Your task to perform on an android device: Show me productivity apps on the Play Store Image 0: 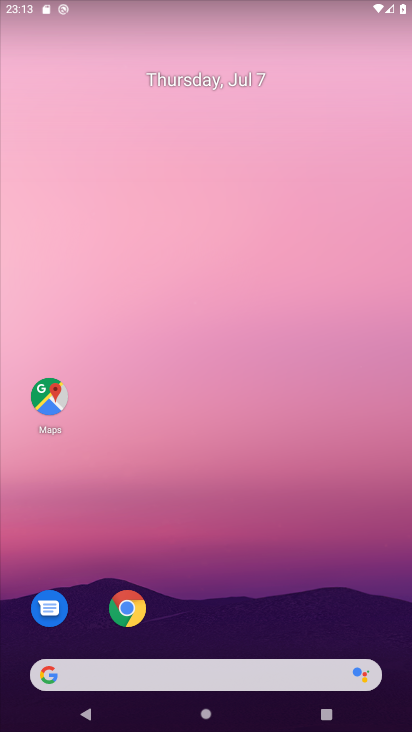
Step 0: drag from (262, 612) to (289, 86)
Your task to perform on an android device: Show me productivity apps on the Play Store Image 1: 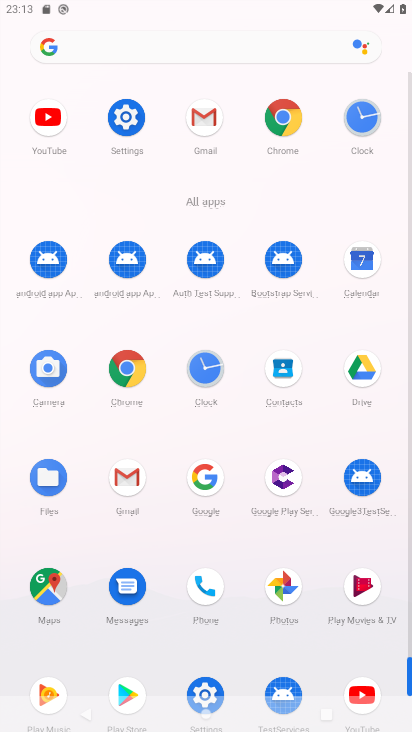
Step 1: click (124, 683)
Your task to perform on an android device: Show me productivity apps on the Play Store Image 2: 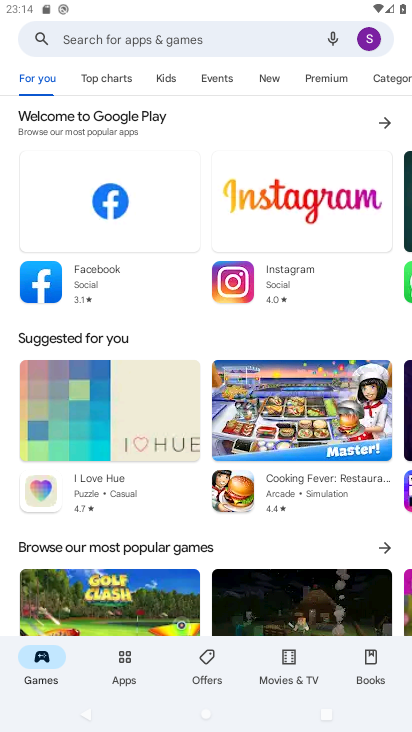
Step 2: click (124, 668)
Your task to perform on an android device: Show me productivity apps on the Play Store Image 3: 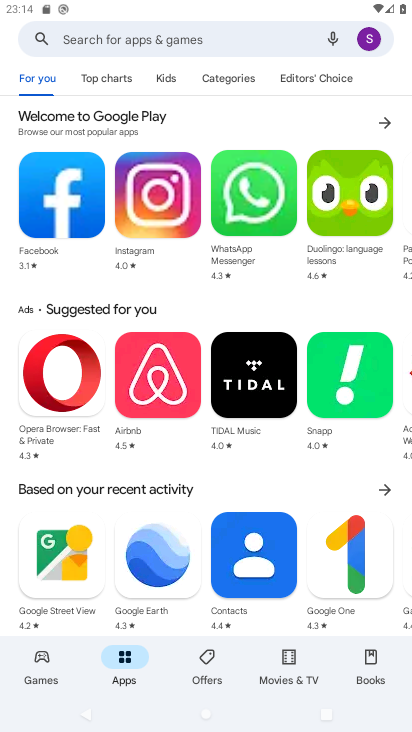
Step 3: task complete